Your task to perform on an android device: change keyboard looks Image 0: 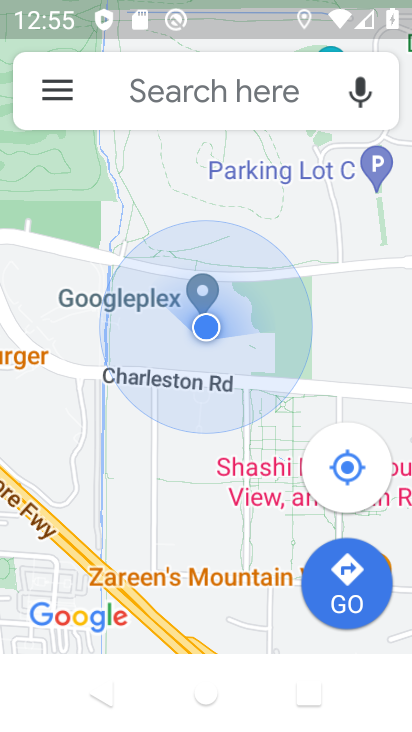
Step 0: press home button
Your task to perform on an android device: change keyboard looks Image 1: 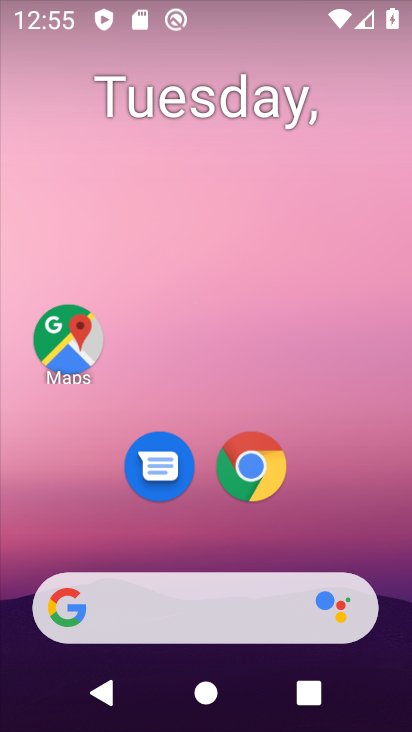
Step 1: drag from (374, 542) to (354, 251)
Your task to perform on an android device: change keyboard looks Image 2: 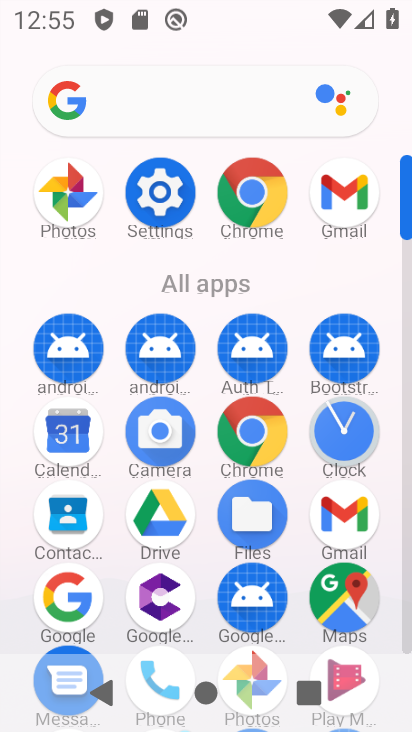
Step 2: click (167, 219)
Your task to perform on an android device: change keyboard looks Image 3: 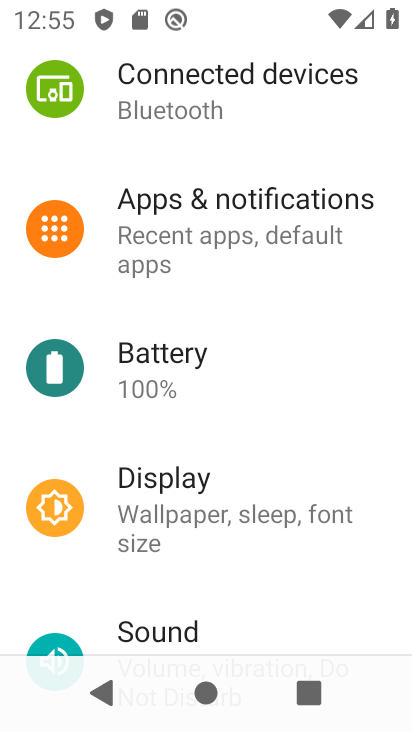
Step 3: drag from (295, 581) to (280, 8)
Your task to perform on an android device: change keyboard looks Image 4: 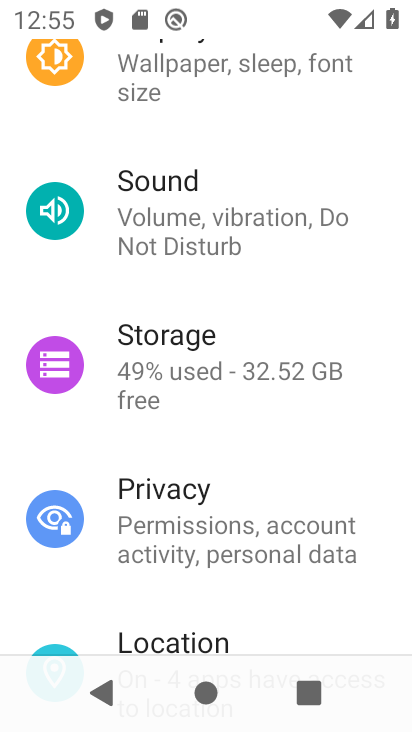
Step 4: drag from (255, 512) to (242, 246)
Your task to perform on an android device: change keyboard looks Image 5: 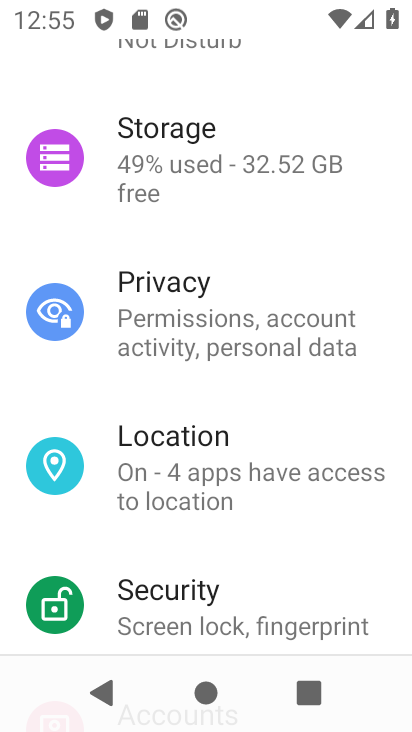
Step 5: drag from (230, 544) to (267, 207)
Your task to perform on an android device: change keyboard looks Image 6: 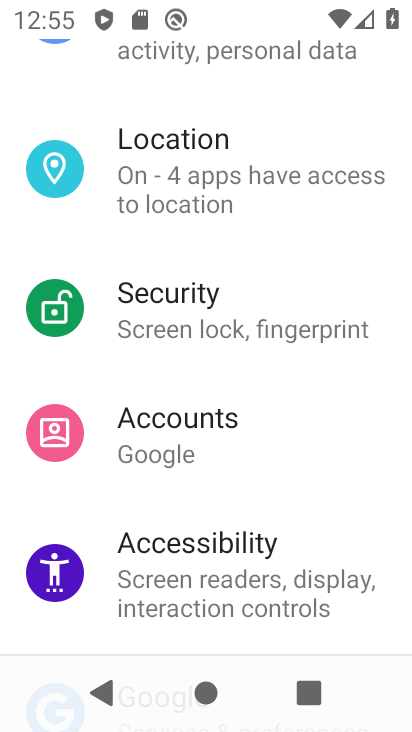
Step 6: drag from (266, 564) to (243, 175)
Your task to perform on an android device: change keyboard looks Image 7: 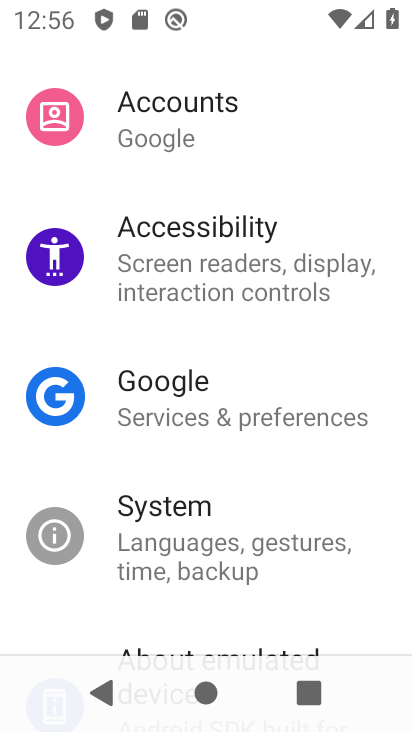
Step 7: click (134, 591)
Your task to perform on an android device: change keyboard looks Image 8: 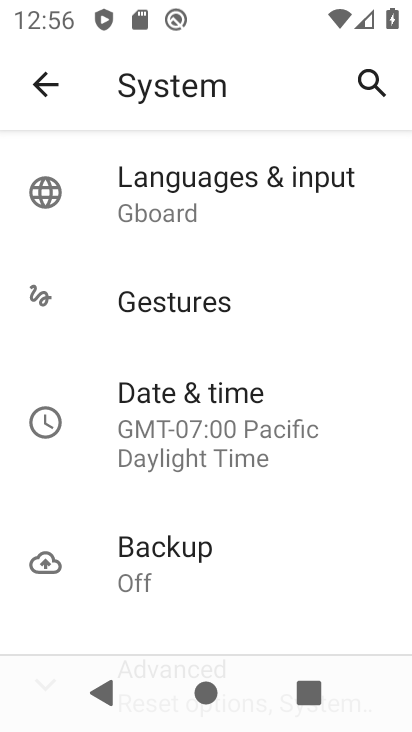
Step 8: click (220, 231)
Your task to perform on an android device: change keyboard looks Image 9: 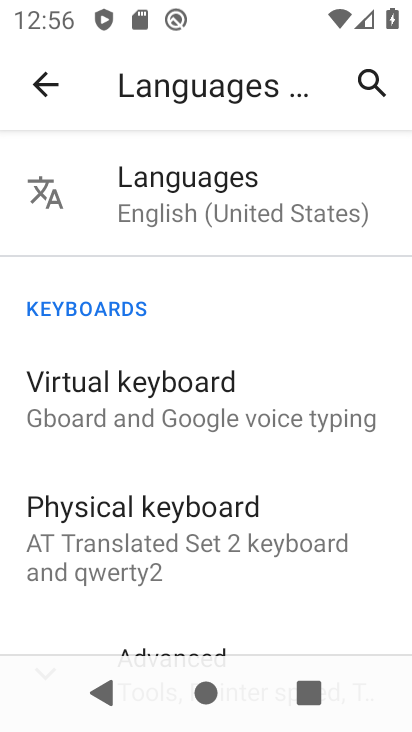
Step 9: click (183, 427)
Your task to perform on an android device: change keyboard looks Image 10: 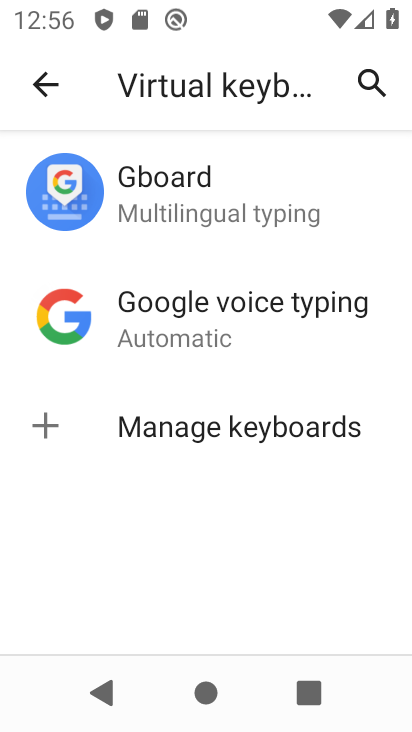
Step 10: click (197, 232)
Your task to perform on an android device: change keyboard looks Image 11: 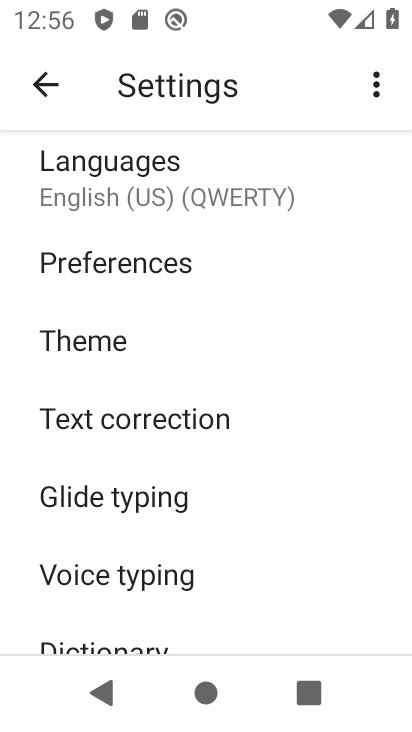
Step 11: task complete